Your task to perform on an android device: Google the capital of Chile Image 0: 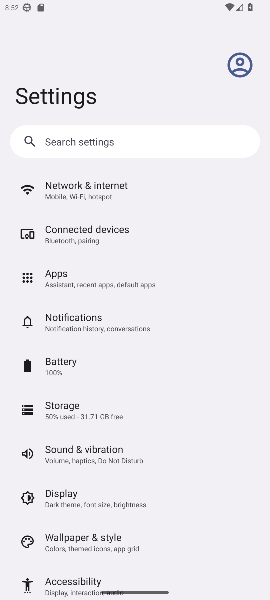
Step 0: press home button
Your task to perform on an android device: Google the capital of Chile Image 1: 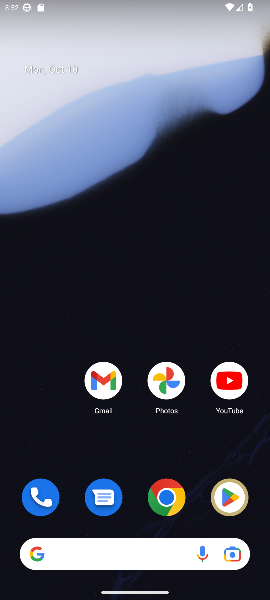
Step 1: drag from (131, 439) to (143, 146)
Your task to perform on an android device: Google the capital of Chile Image 2: 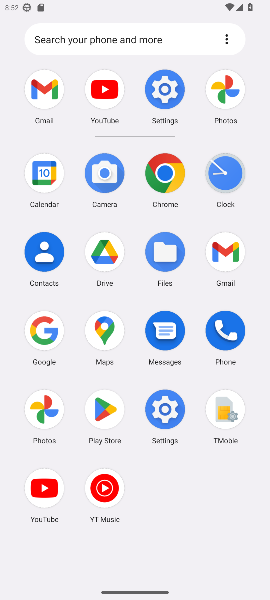
Step 2: click (45, 334)
Your task to perform on an android device: Google the capital of Chile Image 3: 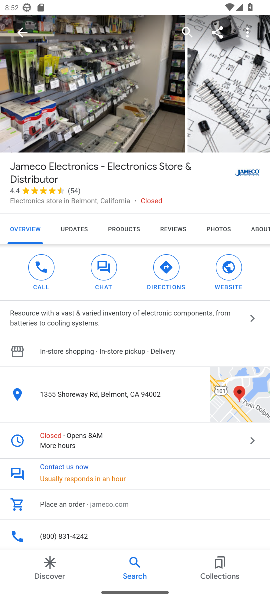
Step 3: click (25, 32)
Your task to perform on an android device: Google the capital of Chile Image 4: 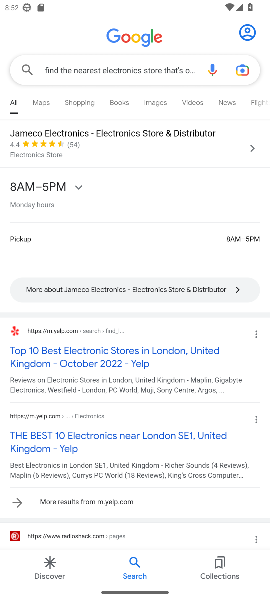
Step 4: click (83, 71)
Your task to perform on an android device: Google the capital of Chile Image 5: 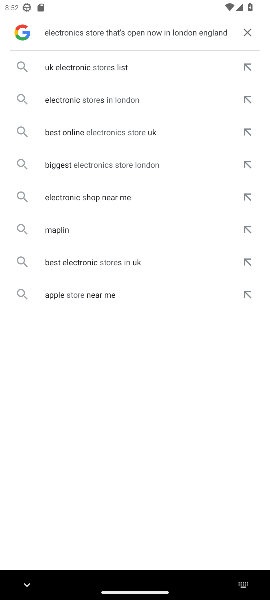
Step 5: click (249, 30)
Your task to perform on an android device: Google the capital of Chile Image 6: 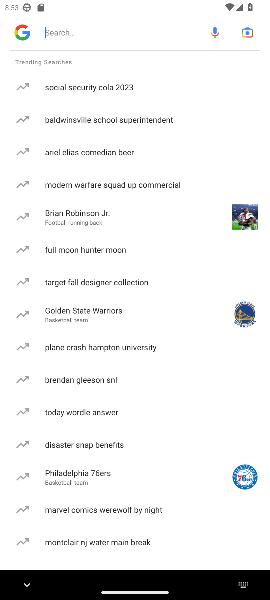
Step 6: click (63, 25)
Your task to perform on an android device: Google the capital of Chile Image 7: 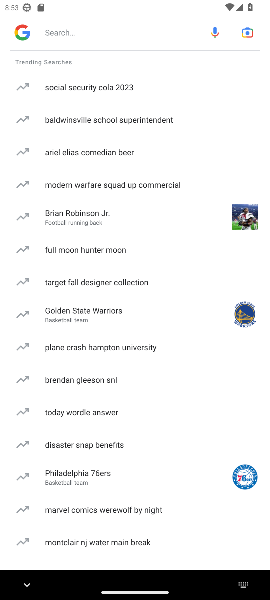
Step 7: type " "
Your task to perform on an android device: Google the capital of Chile Image 8: 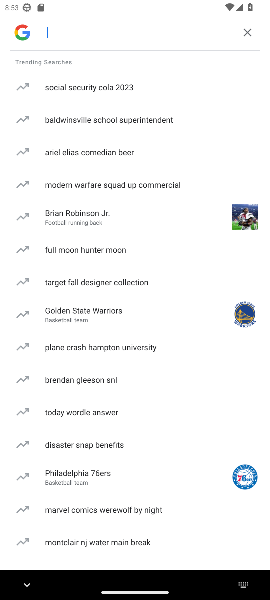
Step 8: click (88, 14)
Your task to perform on an android device: Google the capital of Chile Image 9: 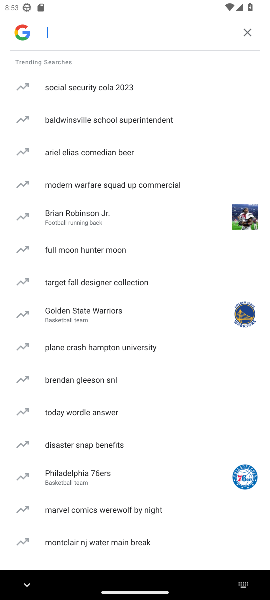
Step 9: type "the capital of Chile "
Your task to perform on an android device: Google the capital of Chile Image 10: 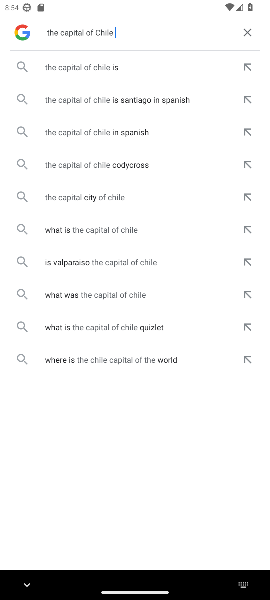
Step 10: click (124, 58)
Your task to perform on an android device: Google the capital of Chile Image 11: 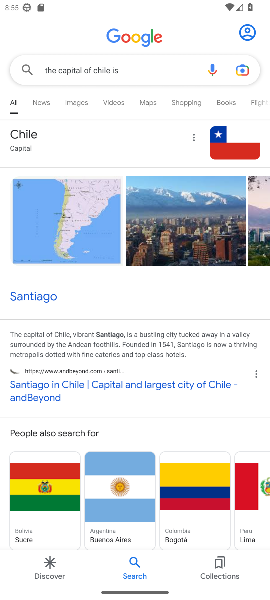
Step 11: task complete